Your task to perform on an android device: turn off picture-in-picture Image 0: 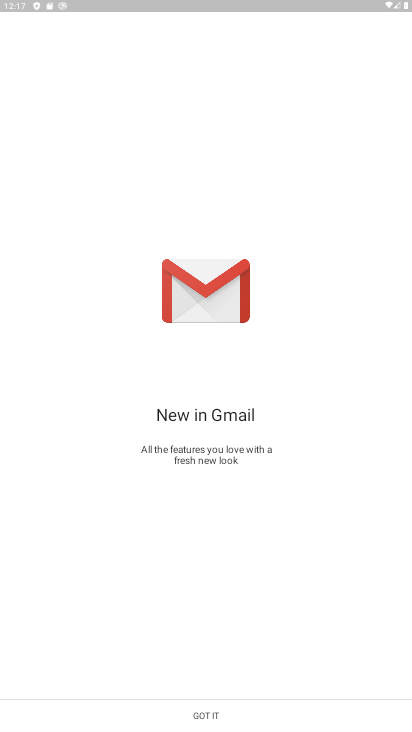
Step 0: press home button
Your task to perform on an android device: turn off picture-in-picture Image 1: 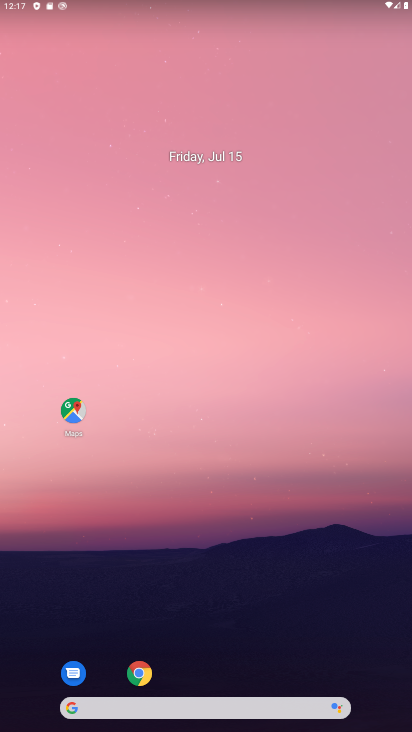
Step 1: click (140, 676)
Your task to perform on an android device: turn off picture-in-picture Image 2: 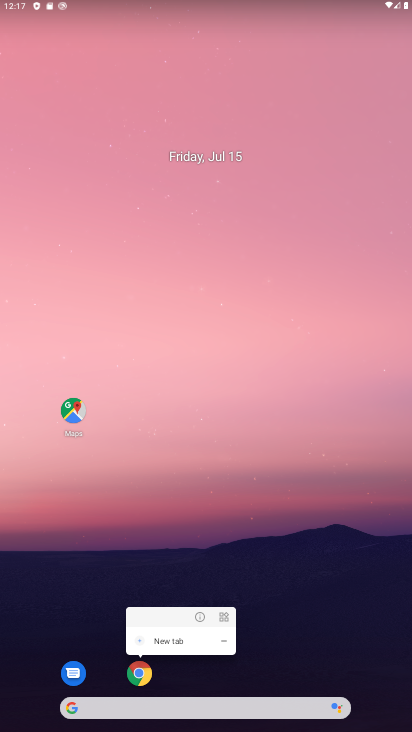
Step 2: click (200, 614)
Your task to perform on an android device: turn off picture-in-picture Image 3: 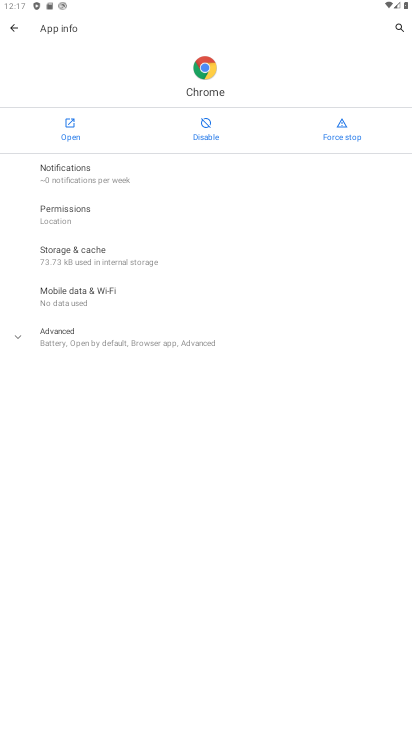
Step 3: click (78, 338)
Your task to perform on an android device: turn off picture-in-picture Image 4: 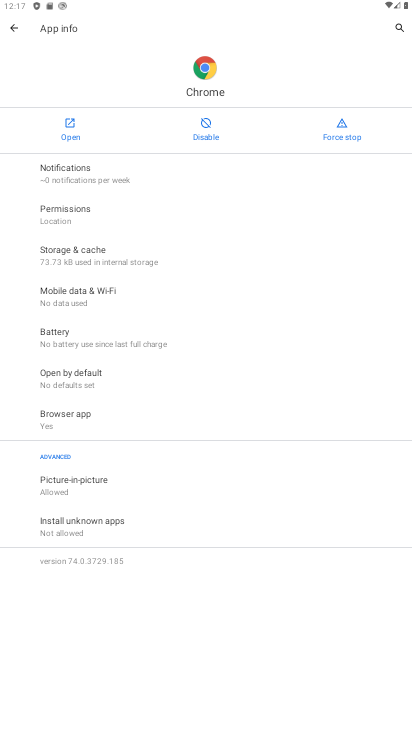
Step 4: click (84, 486)
Your task to perform on an android device: turn off picture-in-picture Image 5: 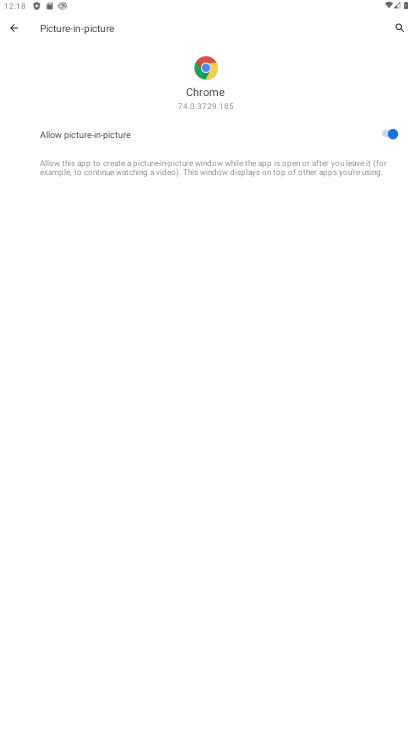
Step 5: click (369, 140)
Your task to perform on an android device: turn off picture-in-picture Image 6: 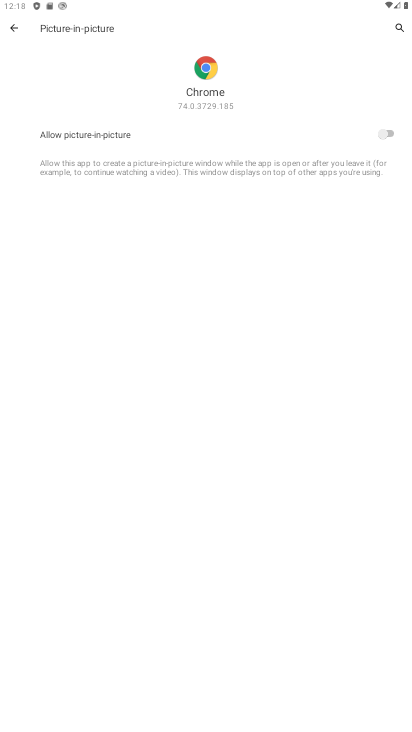
Step 6: task complete